Your task to perform on an android device: Open Yahoo.com Image 0: 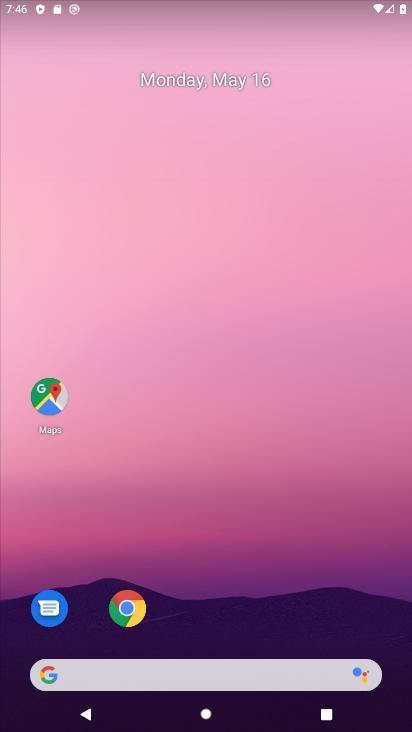
Step 0: press home button
Your task to perform on an android device: Open Yahoo.com Image 1: 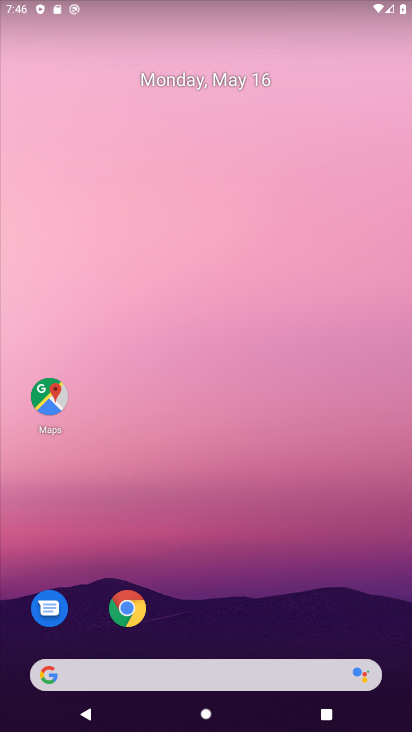
Step 1: click (132, 604)
Your task to perform on an android device: Open Yahoo.com Image 2: 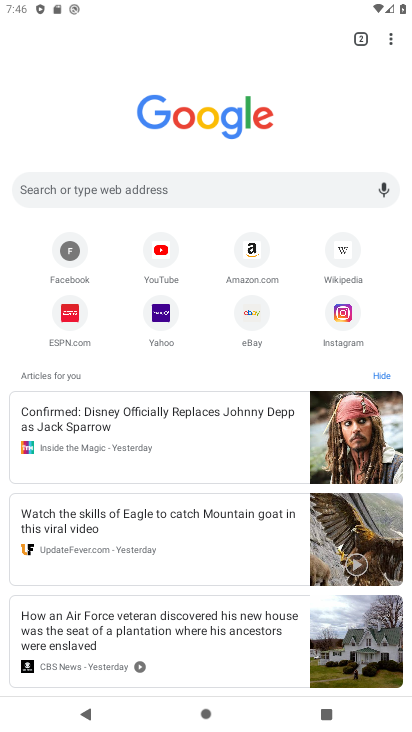
Step 2: click (153, 307)
Your task to perform on an android device: Open Yahoo.com Image 3: 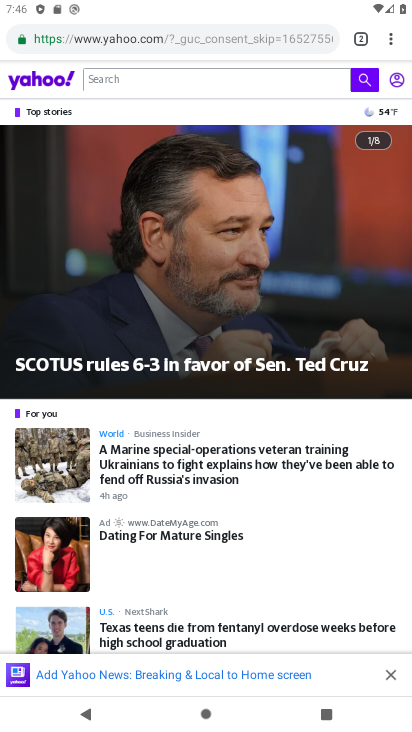
Step 3: task complete